Your task to perform on an android device: toggle notification dots Image 0: 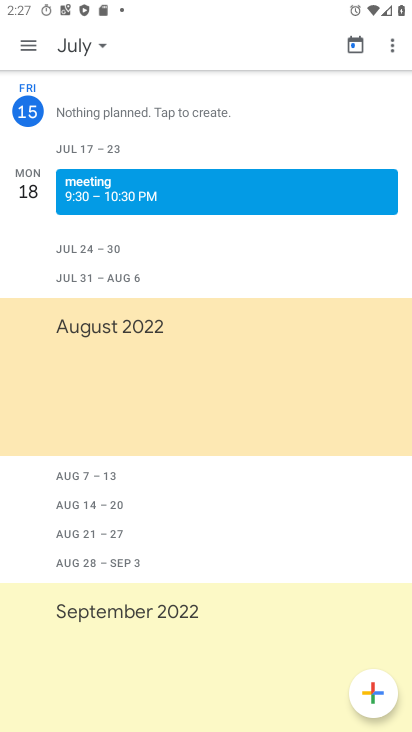
Step 0: press home button
Your task to perform on an android device: toggle notification dots Image 1: 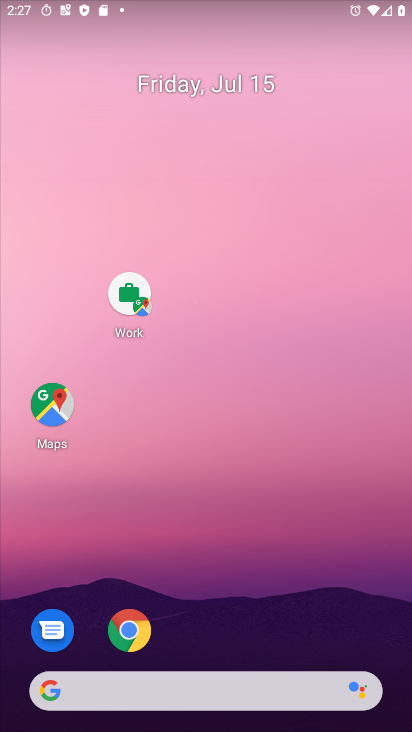
Step 1: drag from (242, 585) to (222, 189)
Your task to perform on an android device: toggle notification dots Image 2: 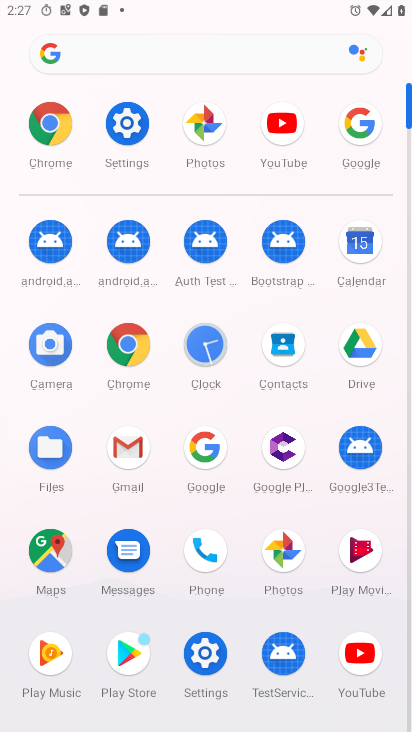
Step 2: click (118, 130)
Your task to perform on an android device: toggle notification dots Image 3: 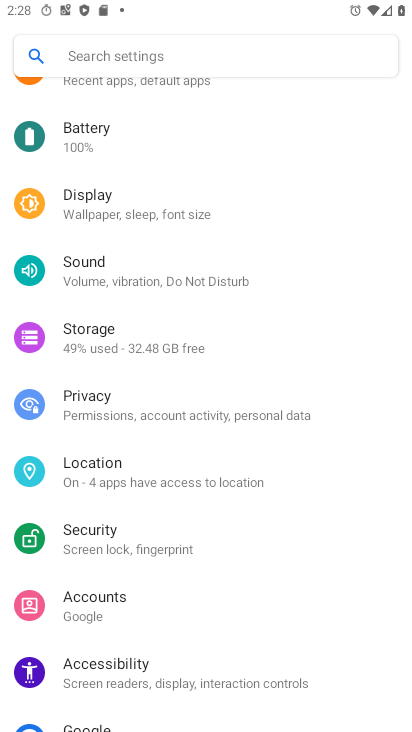
Step 3: drag from (187, 157) to (206, 334)
Your task to perform on an android device: toggle notification dots Image 4: 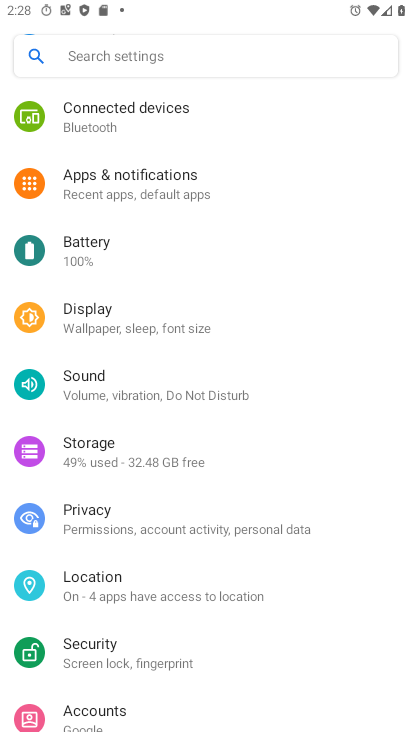
Step 4: click (173, 194)
Your task to perform on an android device: toggle notification dots Image 5: 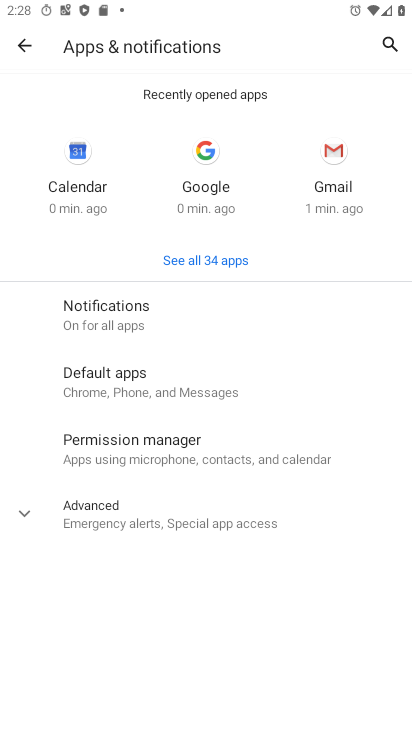
Step 5: click (149, 319)
Your task to perform on an android device: toggle notification dots Image 6: 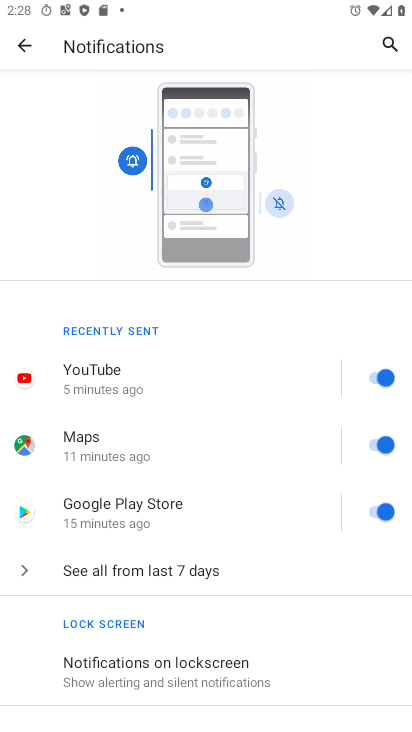
Step 6: drag from (221, 602) to (246, 345)
Your task to perform on an android device: toggle notification dots Image 7: 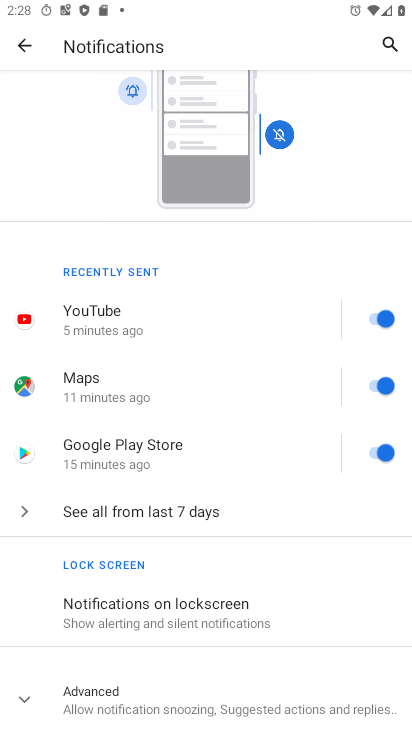
Step 7: click (165, 701)
Your task to perform on an android device: toggle notification dots Image 8: 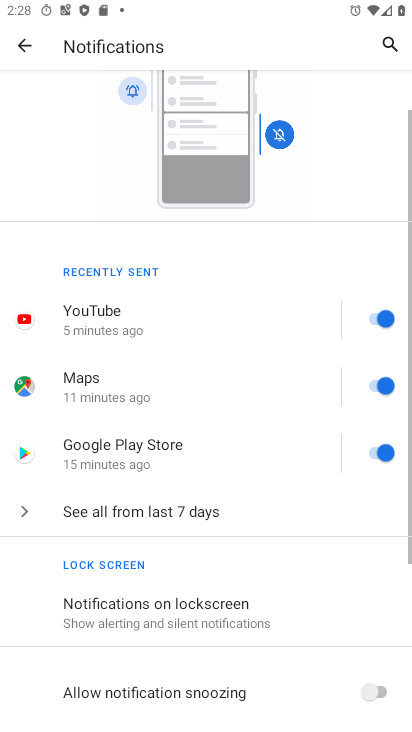
Step 8: drag from (184, 676) to (213, 421)
Your task to perform on an android device: toggle notification dots Image 9: 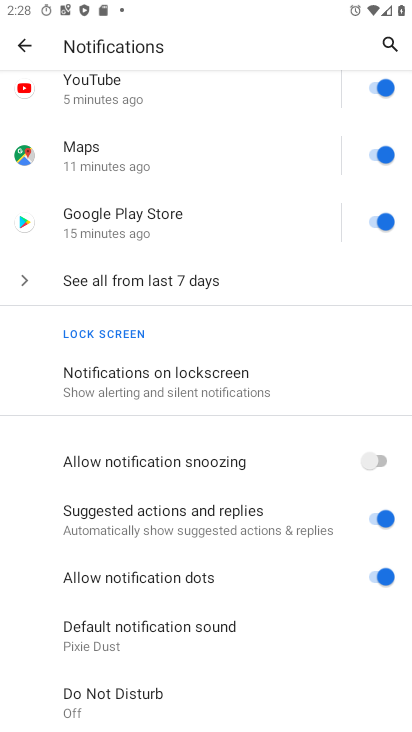
Step 9: click (369, 566)
Your task to perform on an android device: toggle notification dots Image 10: 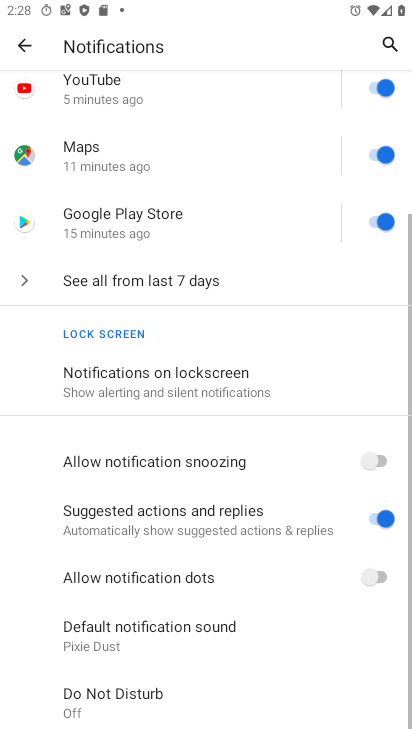
Step 10: task complete